Your task to perform on an android device: Open maps Image 0: 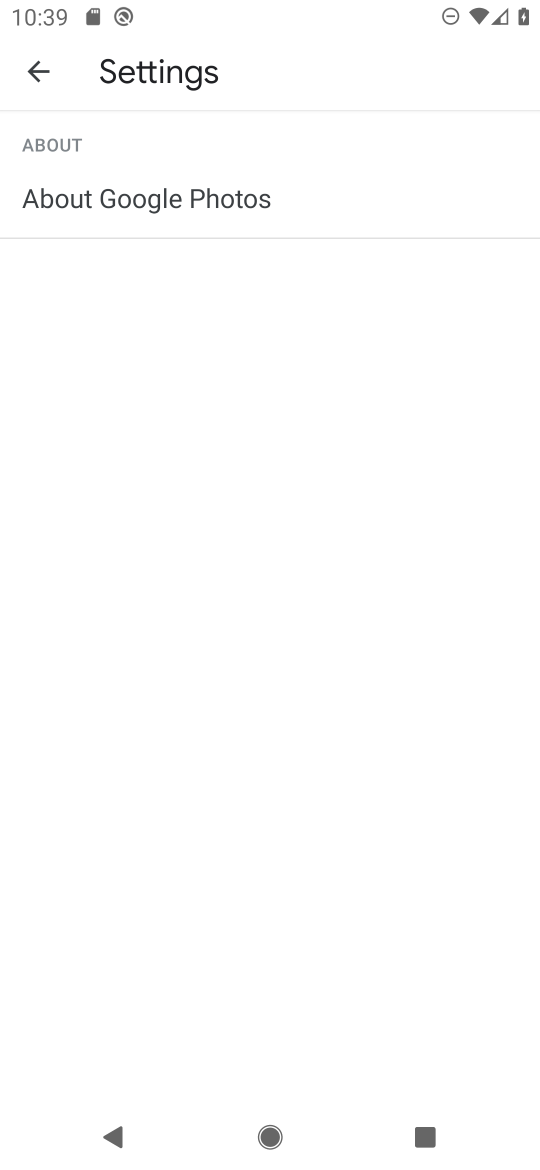
Step 0: press home button
Your task to perform on an android device: Open maps Image 1: 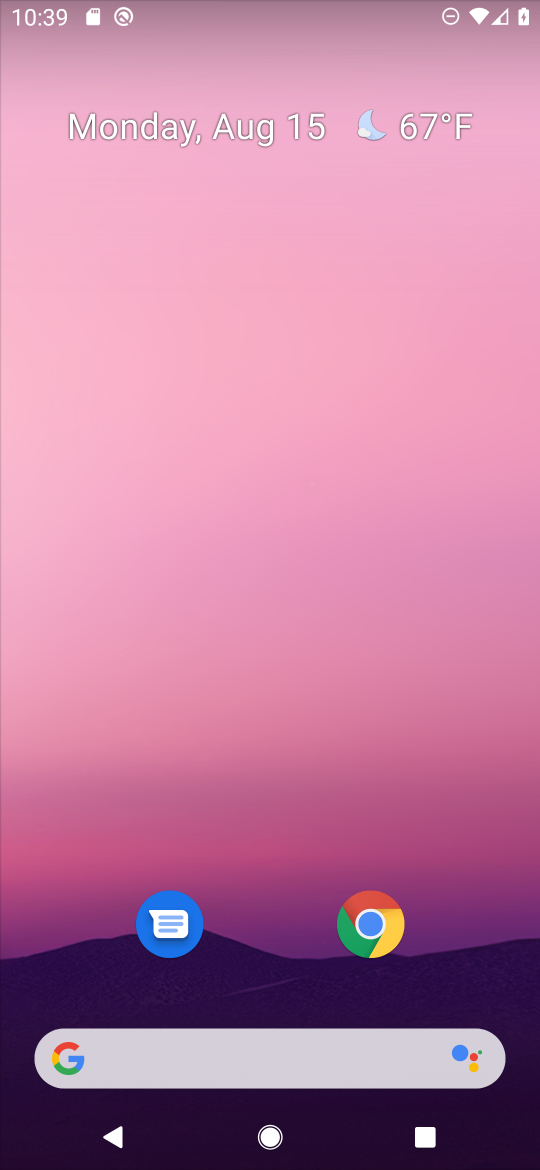
Step 1: drag from (448, 715) to (384, 100)
Your task to perform on an android device: Open maps Image 2: 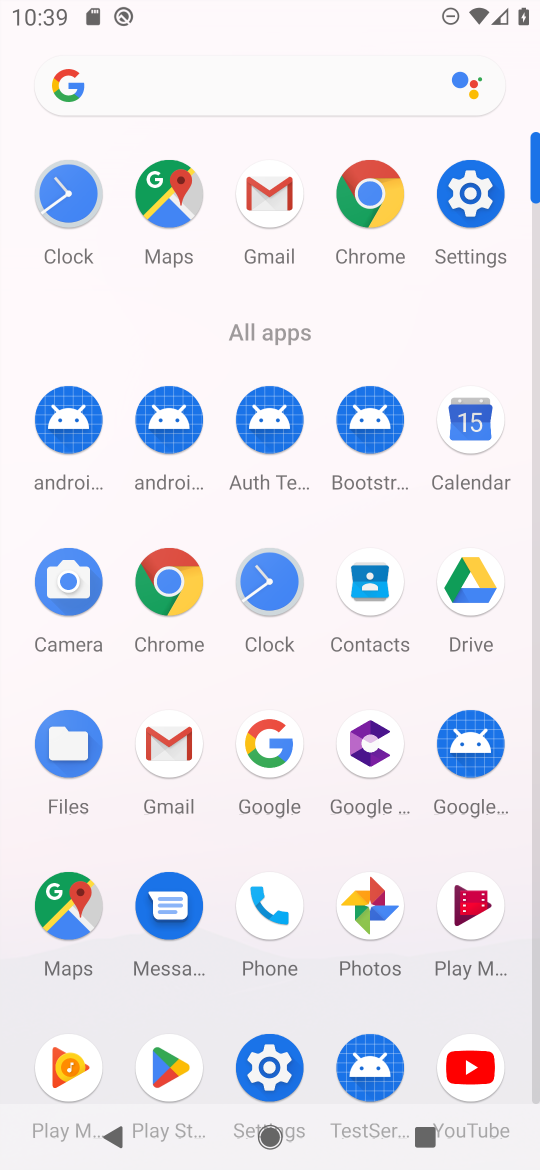
Step 2: click (66, 909)
Your task to perform on an android device: Open maps Image 3: 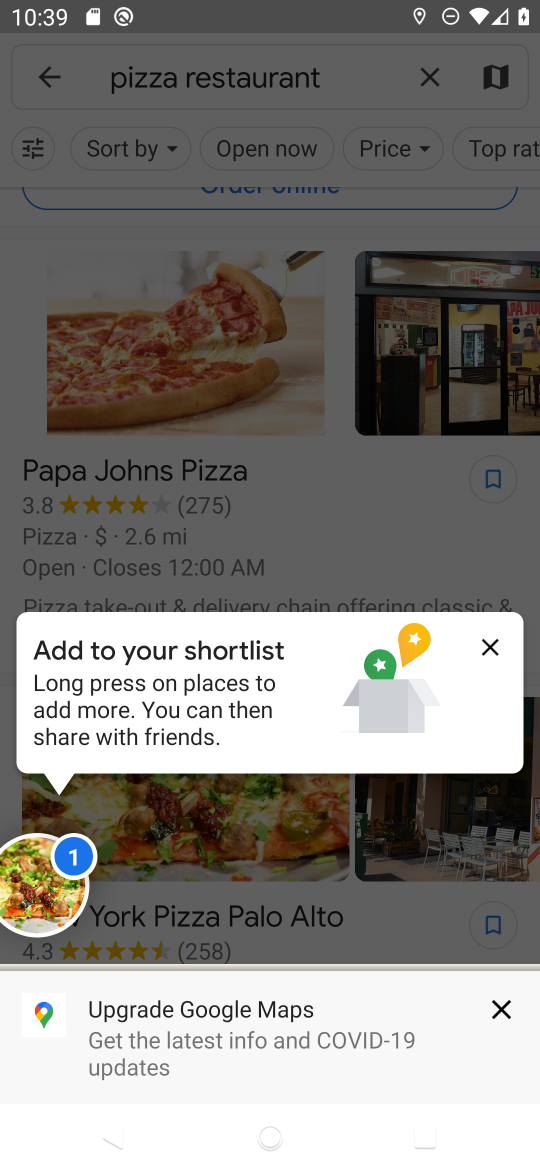
Step 3: click (502, 1002)
Your task to perform on an android device: Open maps Image 4: 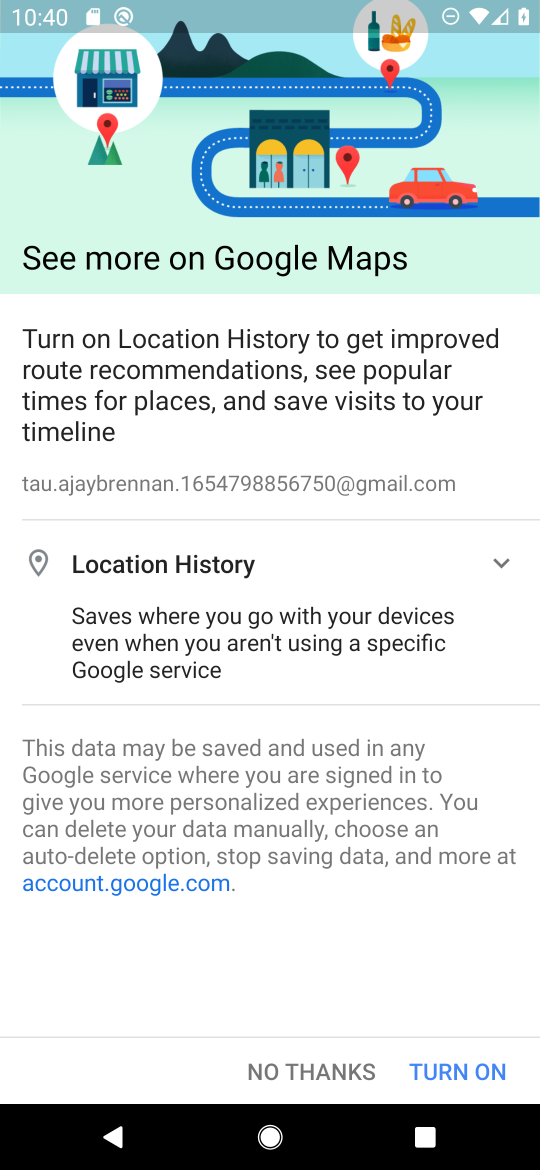
Step 4: press back button
Your task to perform on an android device: Open maps Image 5: 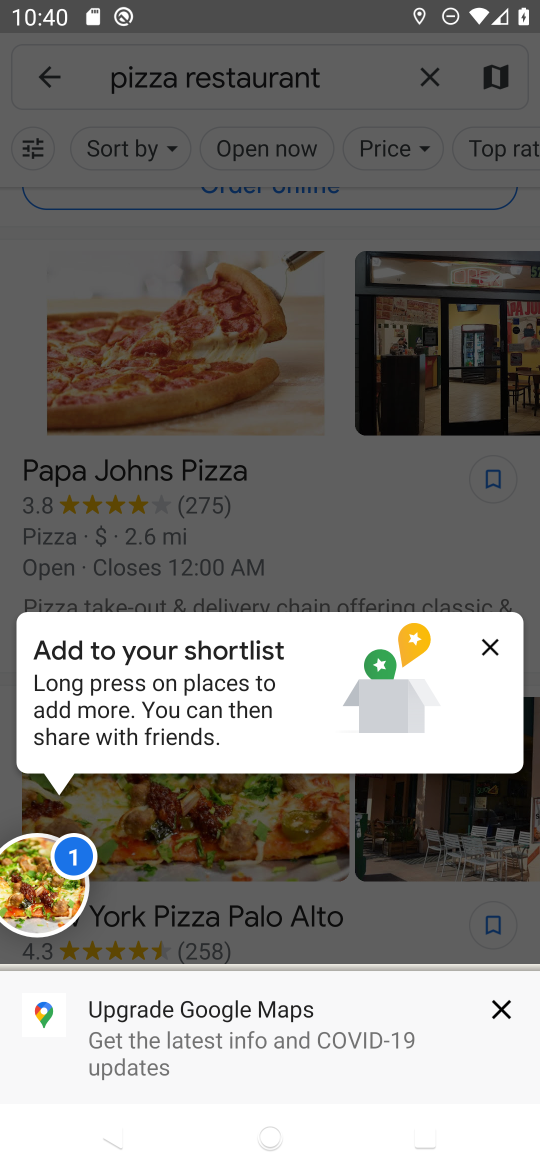
Step 5: click (484, 645)
Your task to perform on an android device: Open maps Image 6: 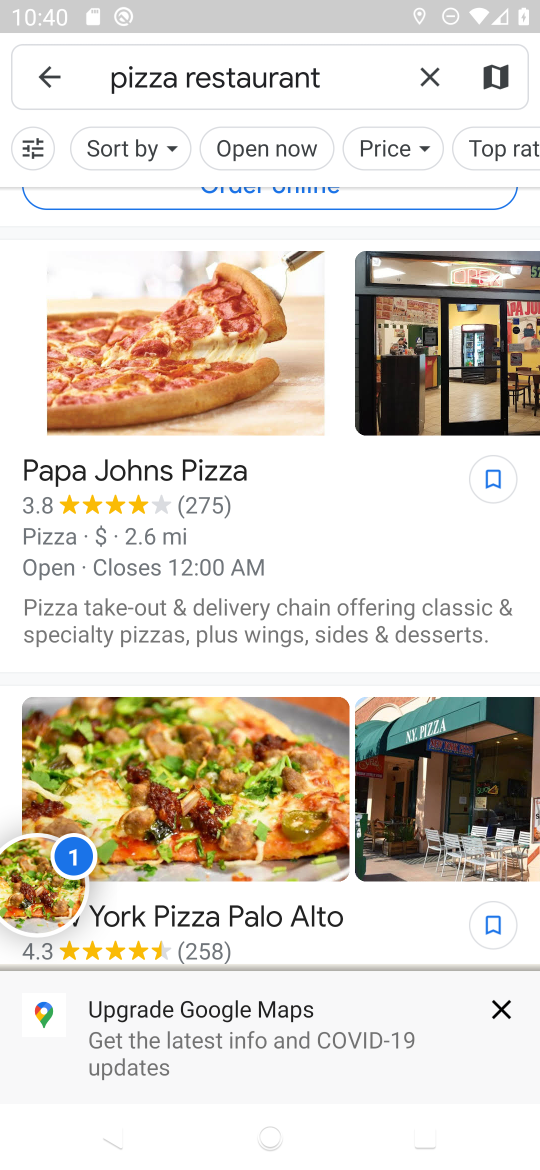
Step 6: click (430, 75)
Your task to perform on an android device: Open maps Image 7: 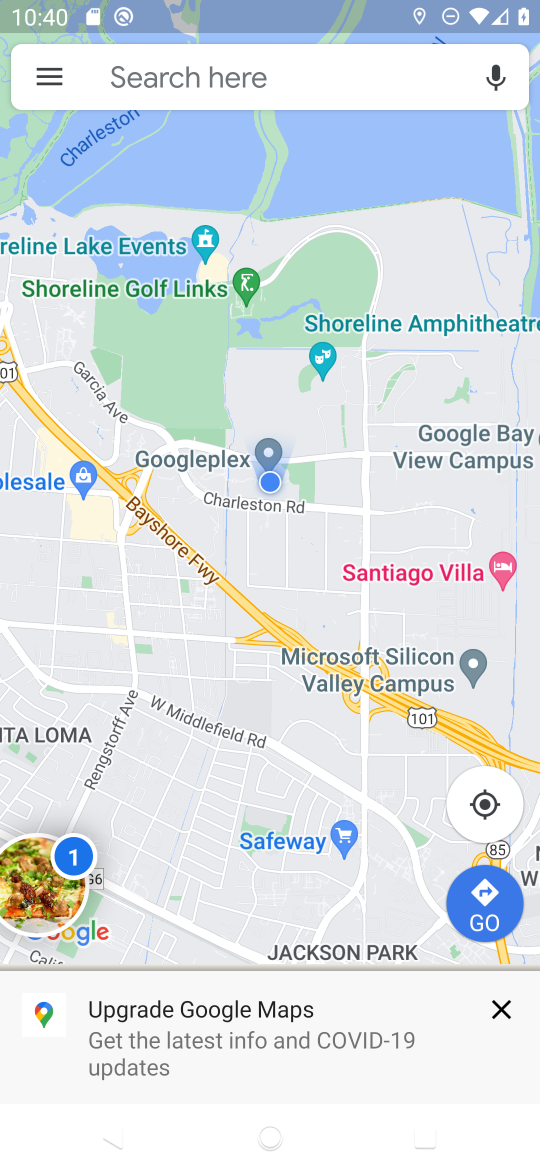
Step 7: task complete